Your task to perform on an android device: When is my next appointment? Image 0: 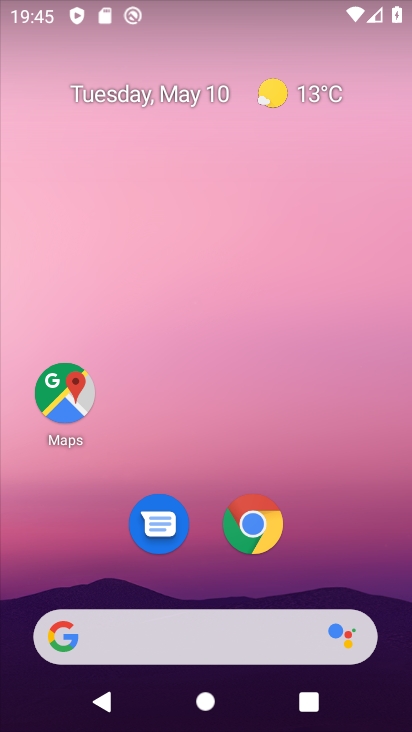
Step 0: drag from (317, 549) to (344, 28)
Your task to perform on an android device: When is my next appointment? Image 1: 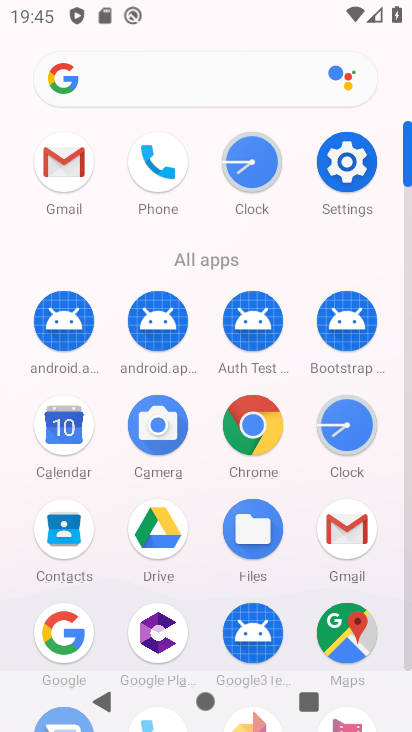
Step 1: click (60, 424)
Your task to perform on an android device: When is my next appointment? Image 2: 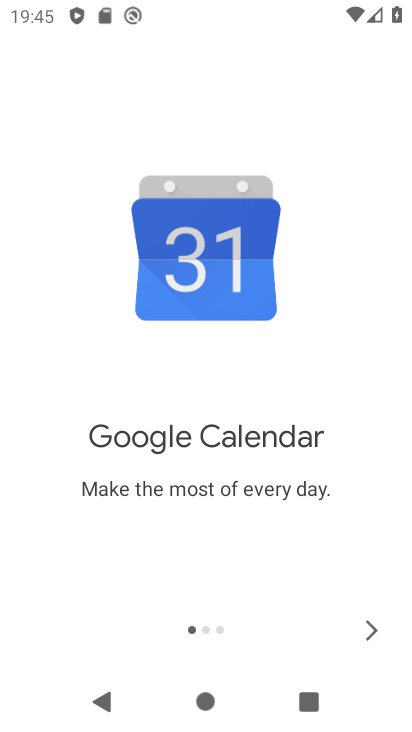
Step 2: click (362, 619)
Your task to perform on an android device: When is my next appointment? Image 3: 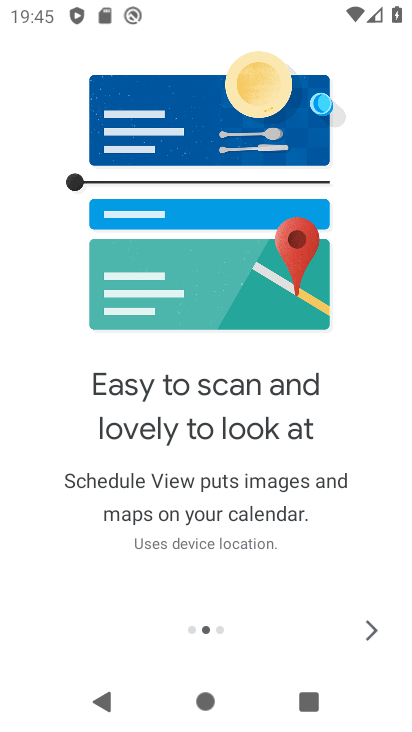
Step 3: click (362, 619)
Your task to perform on an android device: When is my next appointment? Image 4: 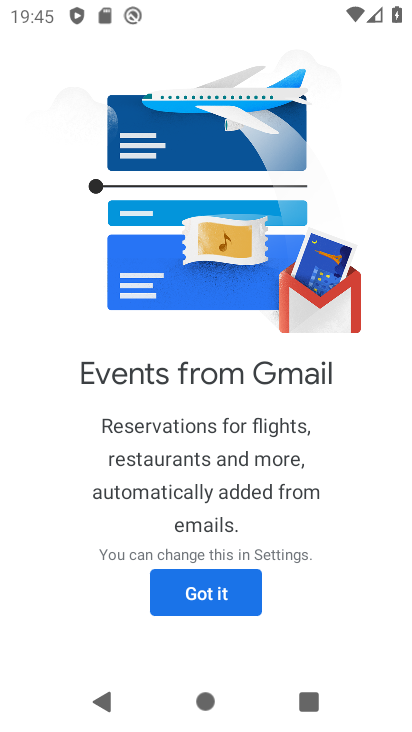
Step 4: click (241, 587)
Your task to perform on an android device: When is my next appointment? Image 5: 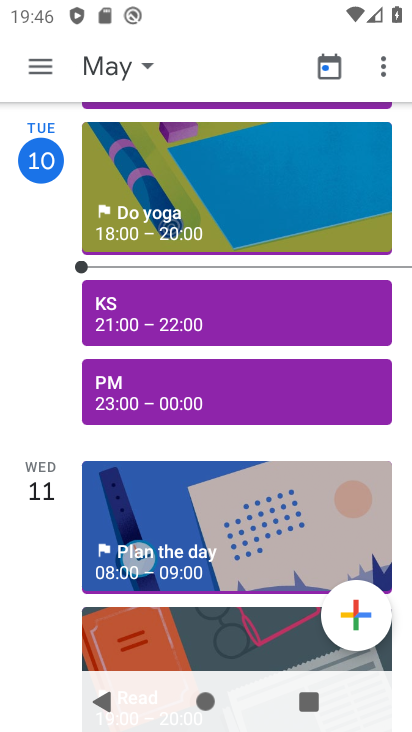
Step 5: task complete